Your task to perform on an android device: add a contact Image 0: 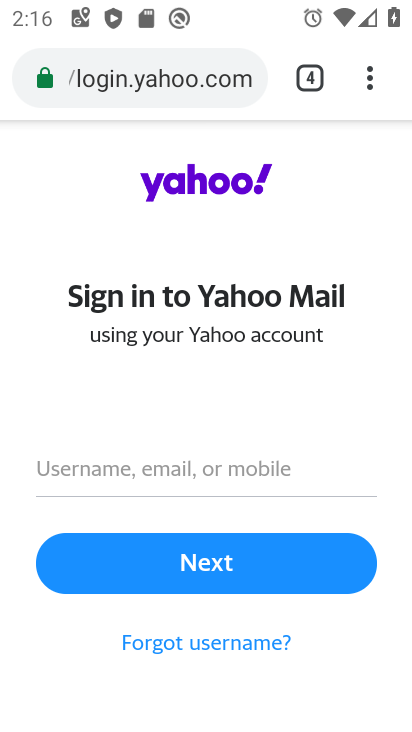
Step 0: press home button
Your task to perform on an android device: add a contact Image 1: 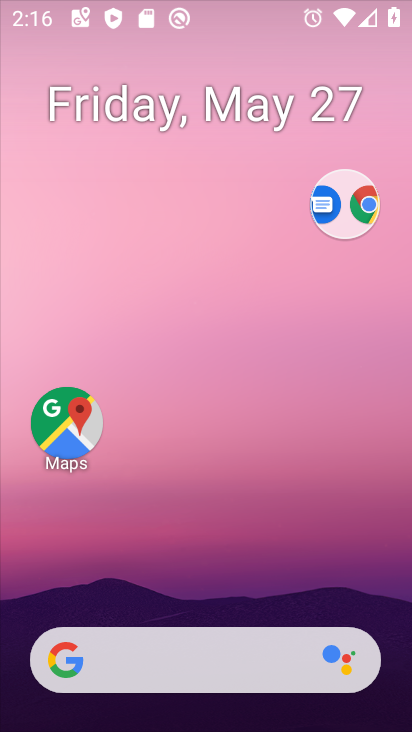
Step 1: drag from (238, 356) to (250, 158)
Your task to perform on an android device: add a contact Image 2: 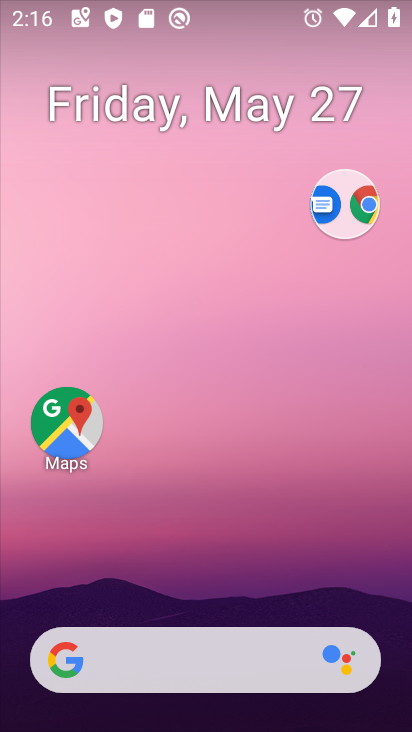
Step 2: drag from (180, 652) to (242, 175)
Your task to perform on an android device: add a contact Image 3: 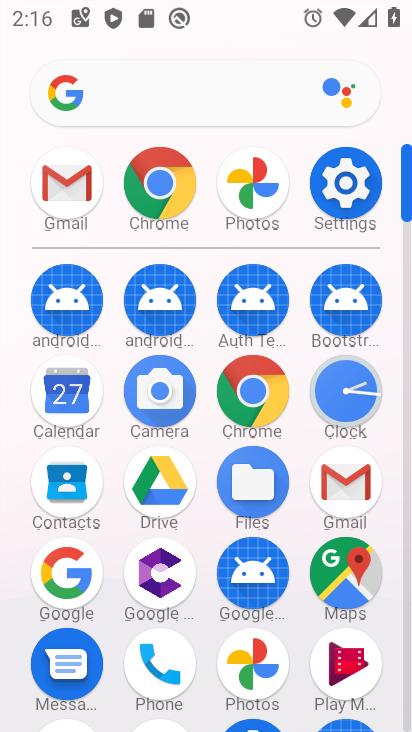
Step 3: click (73, 501)
Your task to perform on an android device: add a contact Image 4: 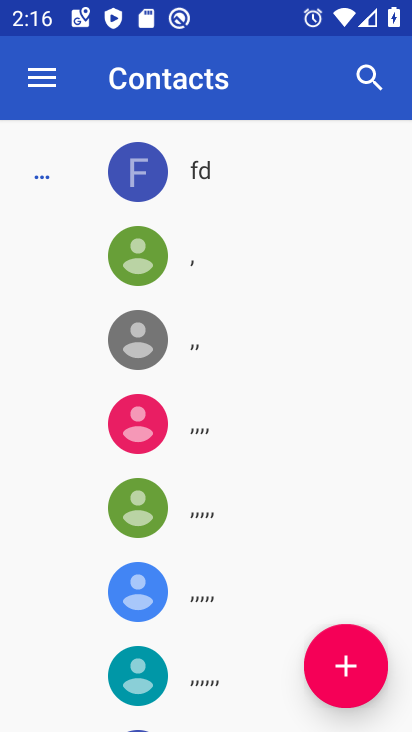
Step 4: click (333, 657)
Your task to perform on an android device: add a contact Image 5: 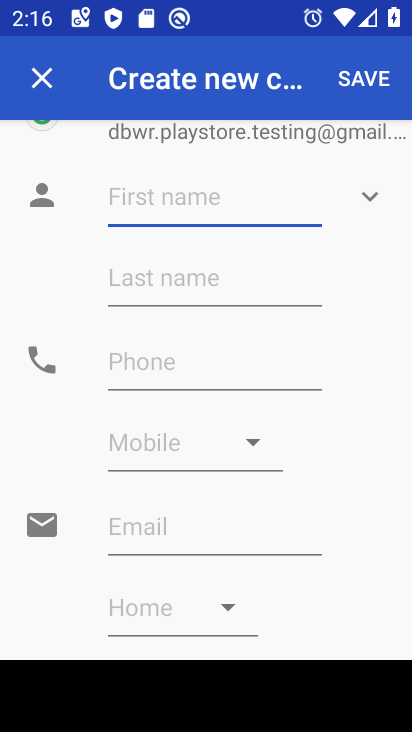
Step 5: type "hgfhfdshg"
Your task to perform on an android device: add a contact Image 6: 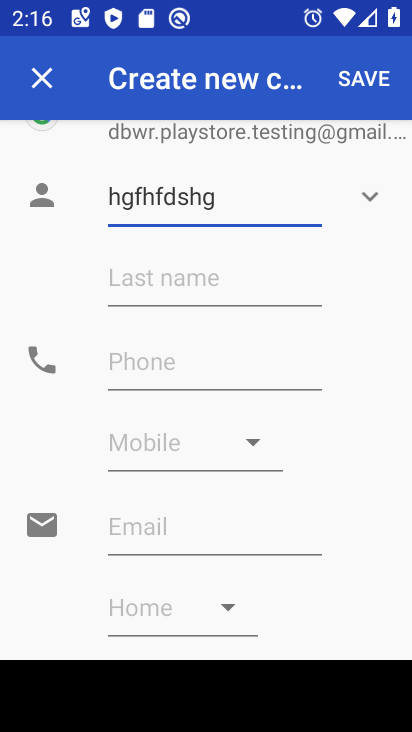
Step 6: click (158, 367)
Your task to perform on an android device: add a contact Image 7: 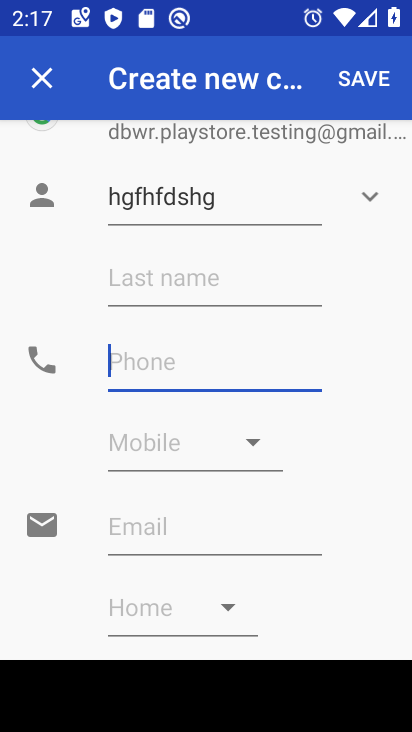
Step 7: type "89798"
Your task to perform on an android device: add a contact Image 8: 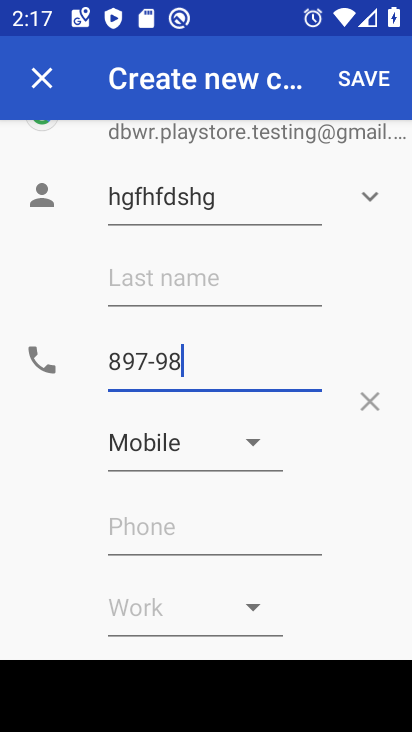
Step 8: click (386, 78)
Your task to perform on an android device: add a contact Image 9: 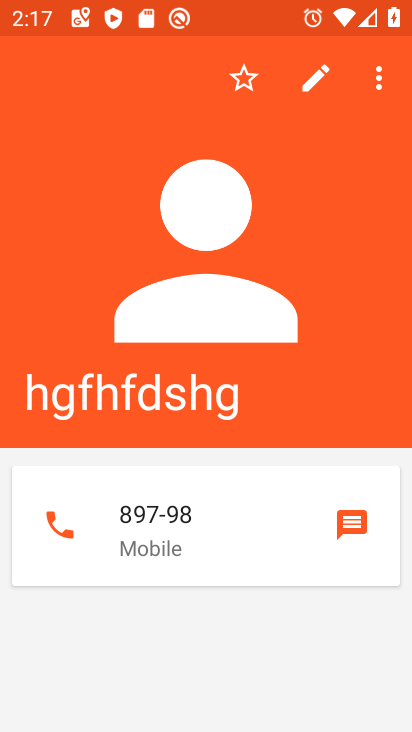
Step 9: task complete